Your task to perform on an android device: open device folders in google photos Image 0: 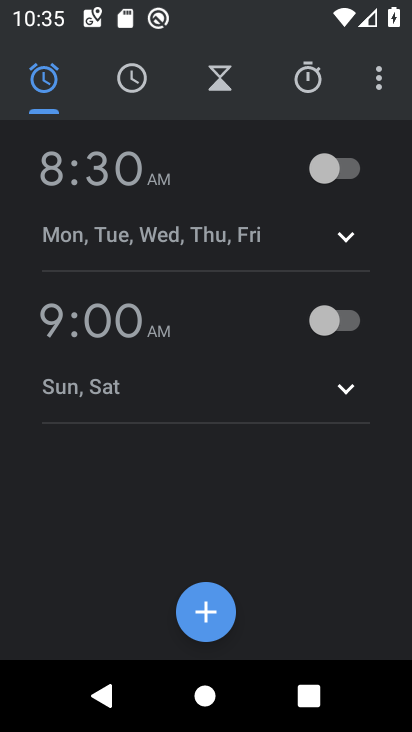
Step 0: press home button
Your task to perform on an android device: open device folders in google photos Image 1: 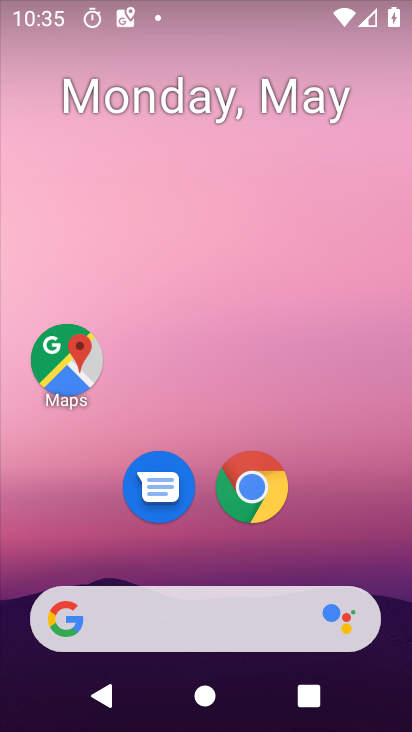
Step 1: drag from (303, 534) to (327, 50)
Your task to perform on an android device: open device folders in google photos Image 2: 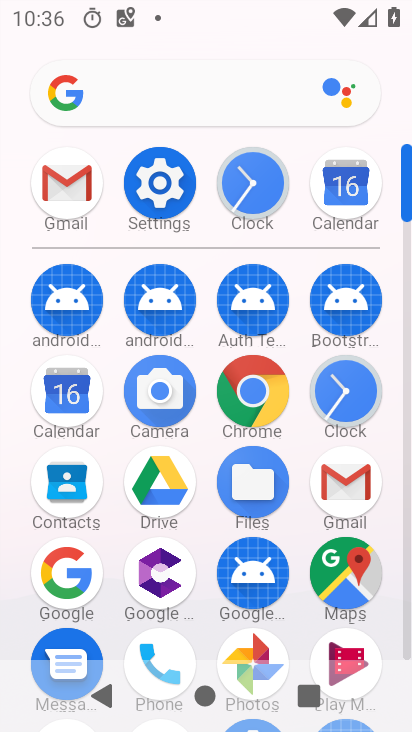
Step 2: click (257, 644)
Your task to perform on an android device: open device folders in google photos Image 3: 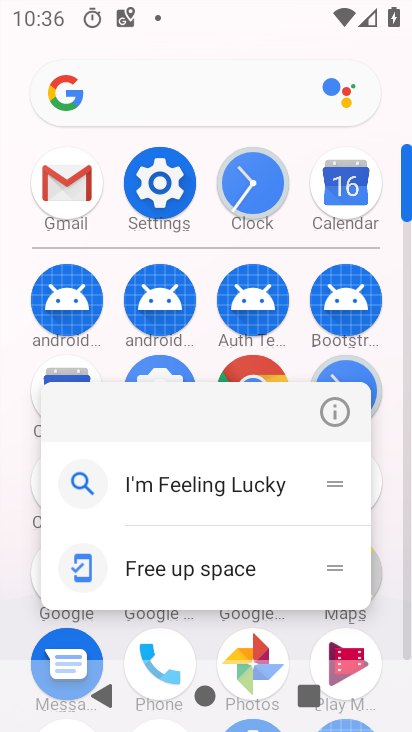
Step 3: click (264, 644)
Your task to perform on an android device: open device folders in google photos Image 4: 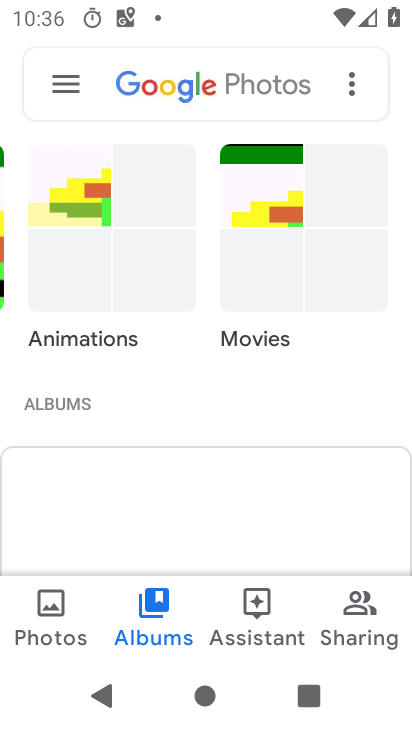
Step 4: click (73, 96)
Your task to perform on an android device: open device folders in google photos Image 5: 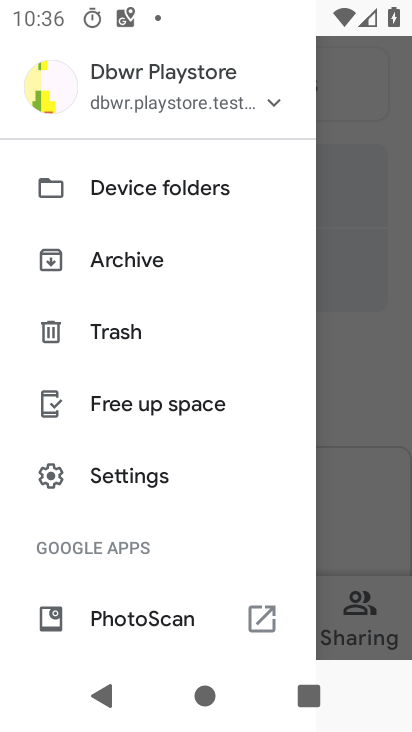
Step 5: click (132, 181)
Your task to perform on an android device: open device folders in google photos Image 6: 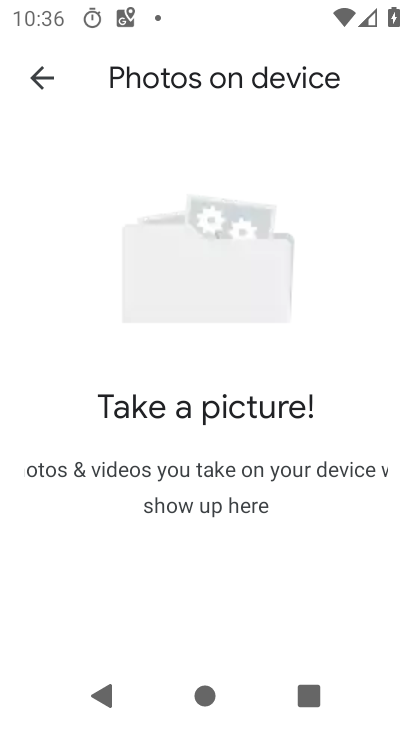
Step 6: task complete